Your task to perform on an android device: Open Yahoo.com Image 0: 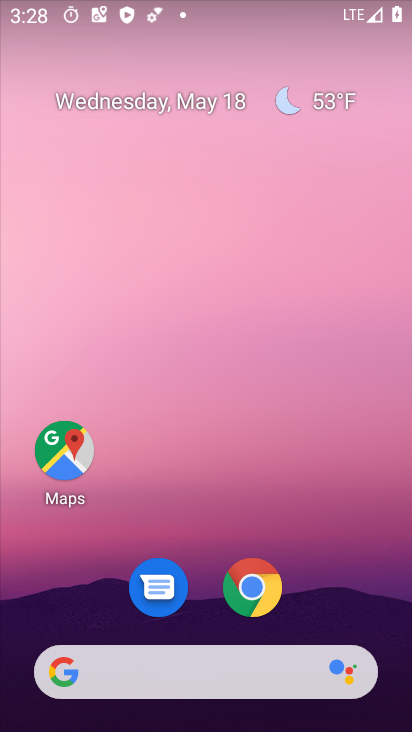
Step 0: drag from (208, 545) to (249, 45)
Your task to perform on an android device: Open Yahoo.com Image 1: 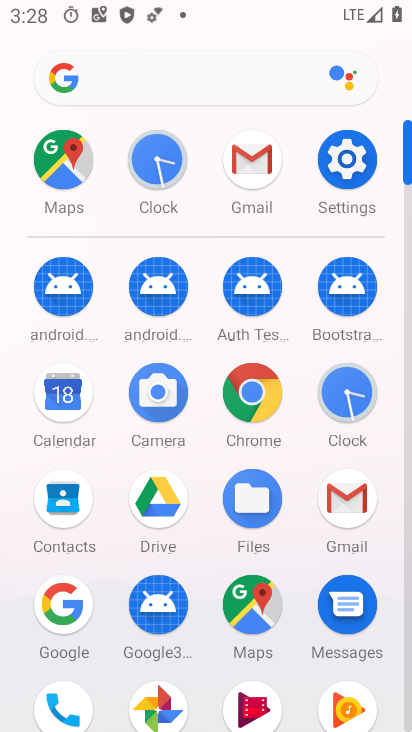
Step 1: click (239, 421)
Your task to perform on an android device: Open Yahoo.com Image 2: 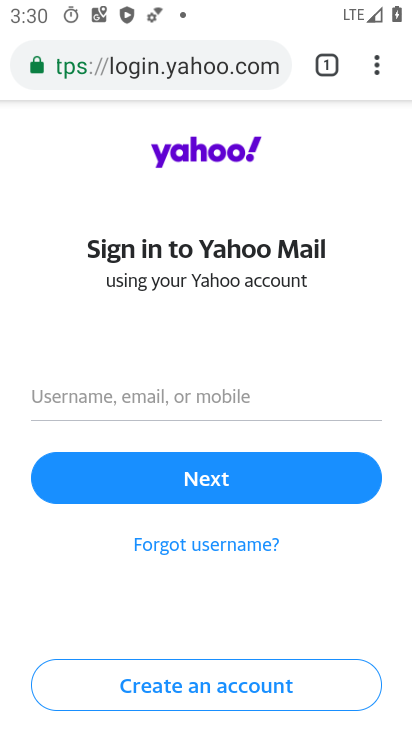
Step 2: task complete